Your task to perform on an android device: Set the phone to "Do not disturb". Image 0: 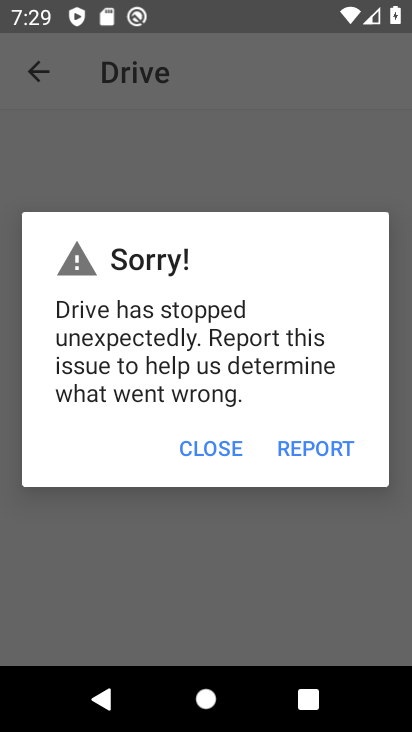
Step 0: press home button
Your task to perform on an android device: Set the phone to "Do not disturb". Image 1: 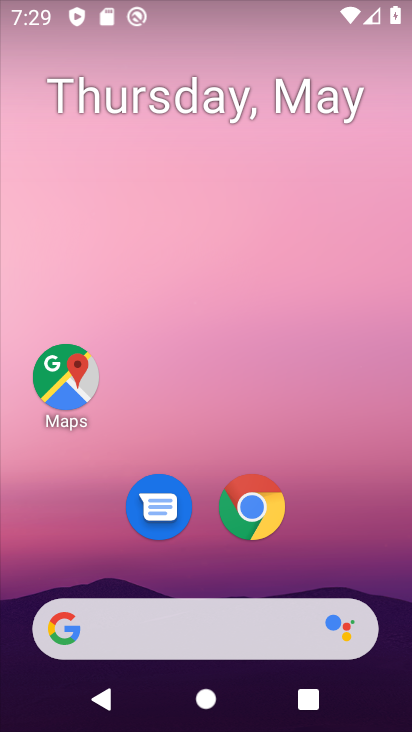
Step 1: drag from (350, 552) to (329, 95)
Your task to perform on an android device: Set the phone to "Do not disturb". Image 2: 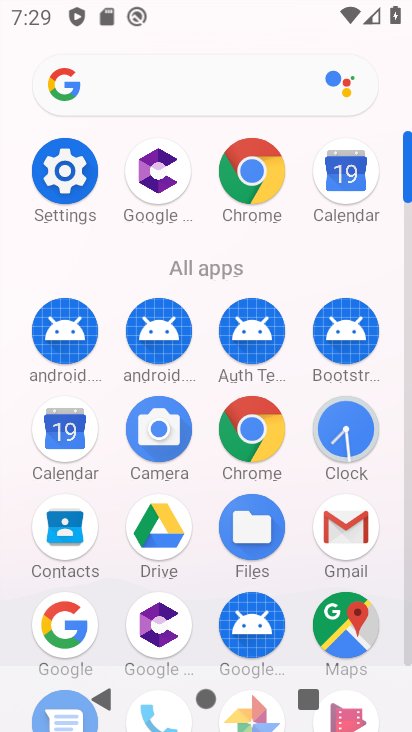
Step 2: click (67, 167)
Your task to perform on an android device: Set the phone to "Do not disturb". Image 3: 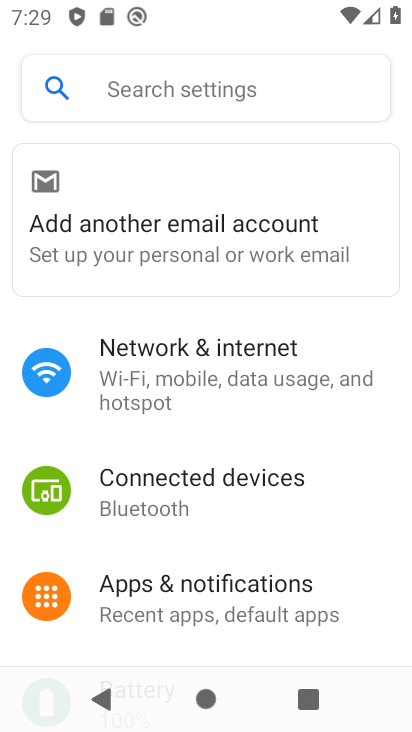
Step 3: drag from (226, 584) to (309, 226)
Your task to perform on an android device: Set the phone to "Do not disturb". Image 4: 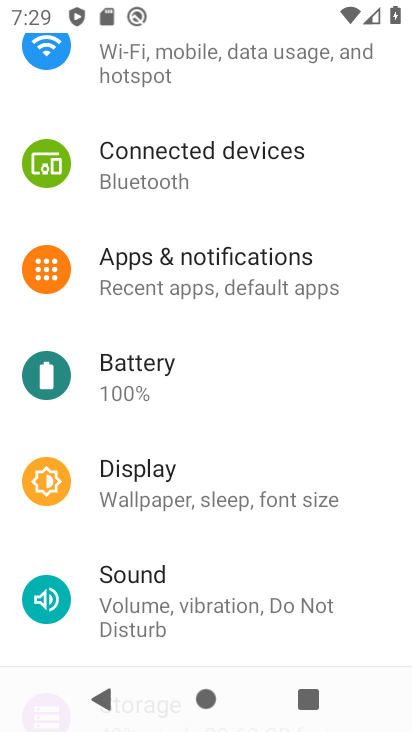
Step 4: click (197, 598)
Your task to perform on an android device: Set the phone to "Do not disturb". Image 5: 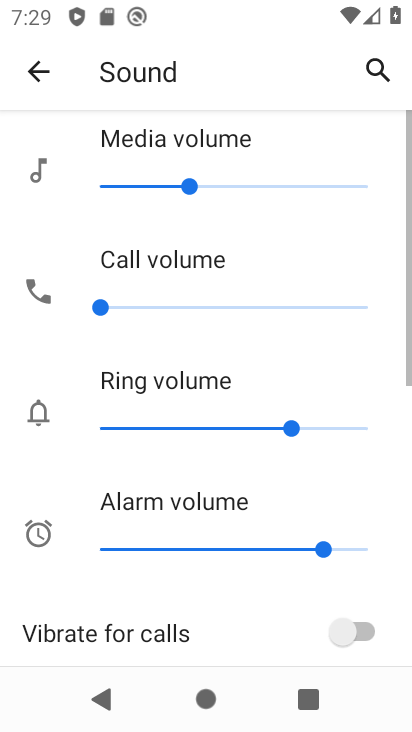
Step 5: drag from (197, 597) to (260, 180)
Your task to perform on an android device: Set the phone to "Do not disturb". Image 6: 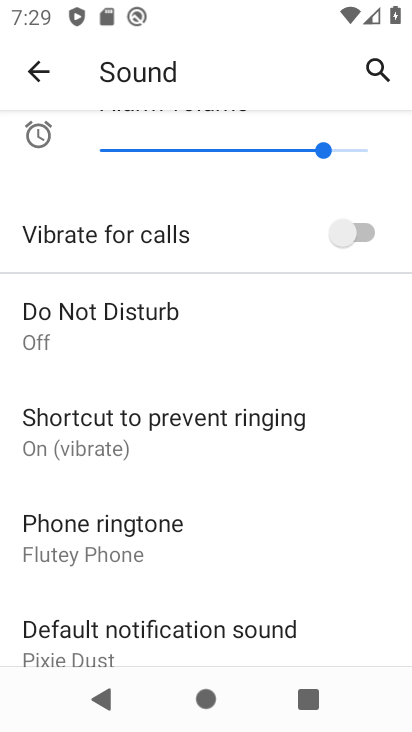
Step 6: drag from (210, 571) to (246, 340)
Your task to perform on an android device: Set the phone to "Do not disturb". Image 7: 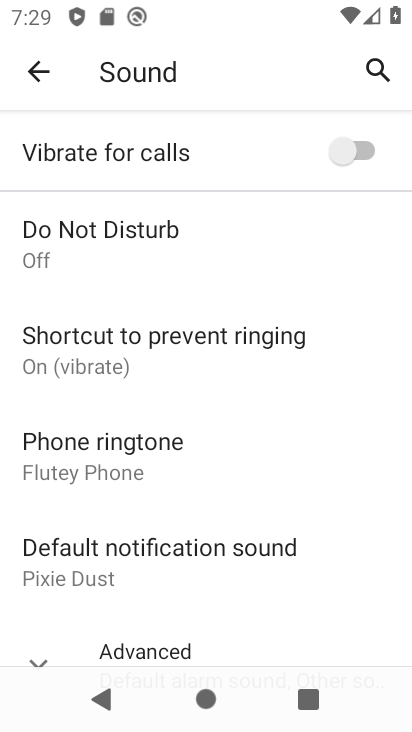
Step 7: click (113, 243)
Your task to perform on an android device: Set the phone to "Do not disturb". Image 8: 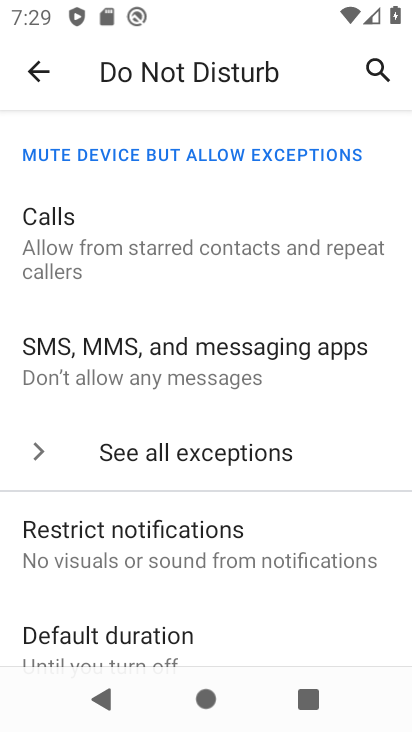
Step 8: drag from (232, 513) to (244, 206)
Your task to perform on an android device: Set the phone to "Do not disturb". Image 9: 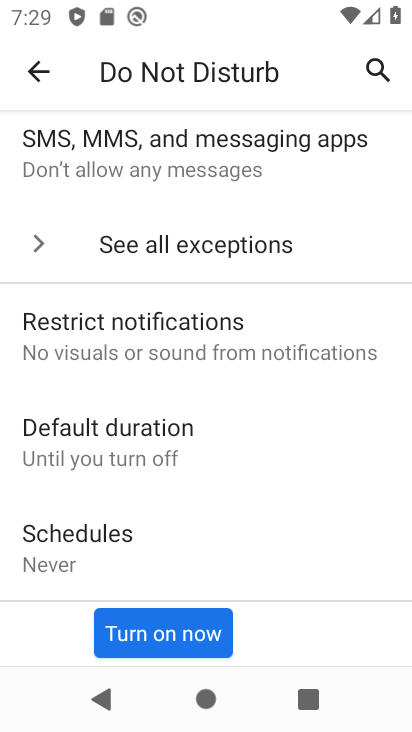
Step 9: click (199, 636)
Your task to perform on an android device: Set the phone to "Do not disturb". Image 10: 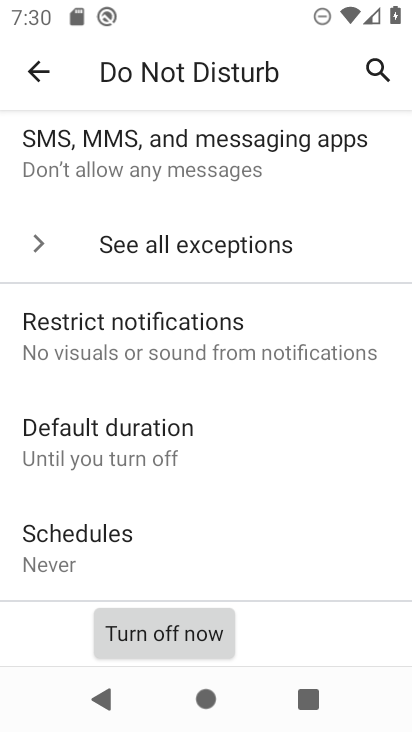
Step 10: task complete